Your task to perform on an android device: stop showing notifications on the lock screen Image 0: 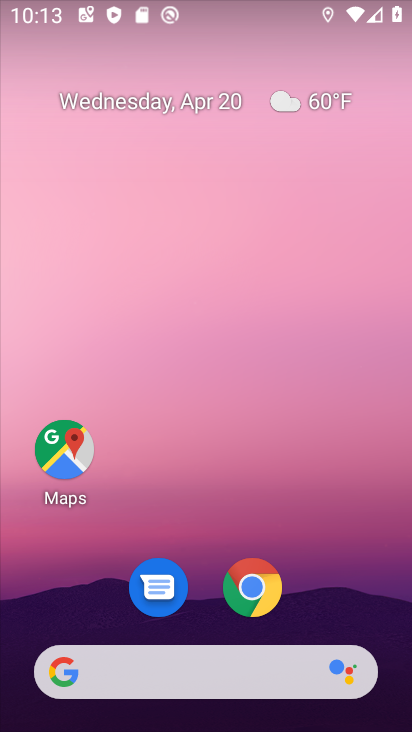
Step 0: drag from (344, 540) to (203, 137)
Your task to perform on an android device: stop showing notifications on the lock screen Image 1: 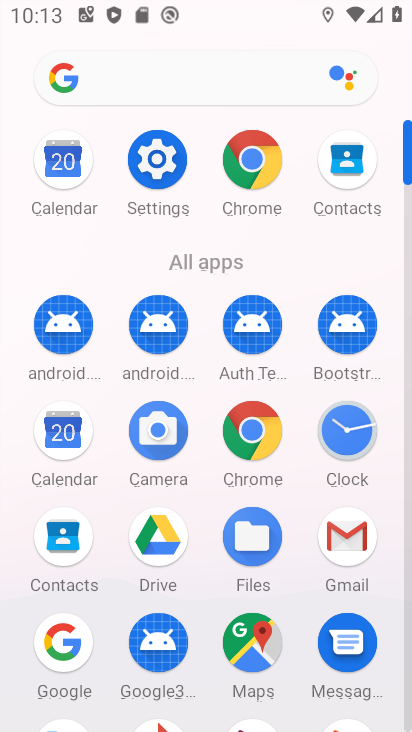
Step 1: click (148, 161)
Your task to perform on an android device: stop showing notifications on the lock screen Image 2: 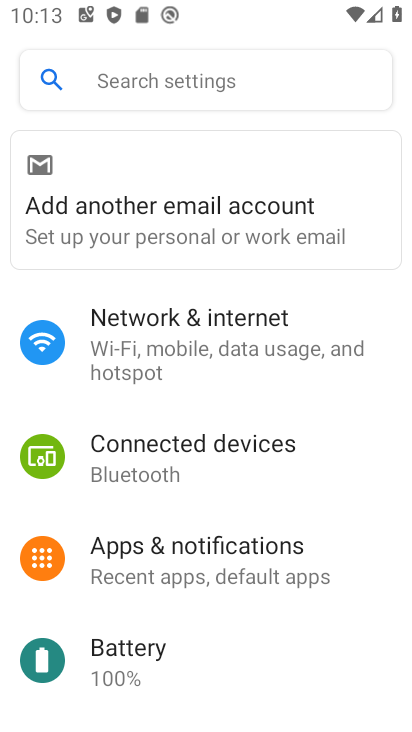
Step 2: click (140, 560)
Your task to perform on an android device: stop showing notifications on the lock screen Image 3: 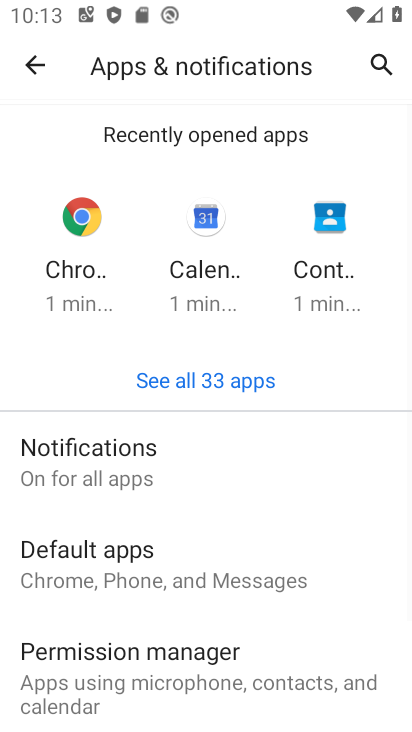
Step 3: click (78, 449)
Your task to perform on an android device: stop showing notifications on the lock screen Image 4: 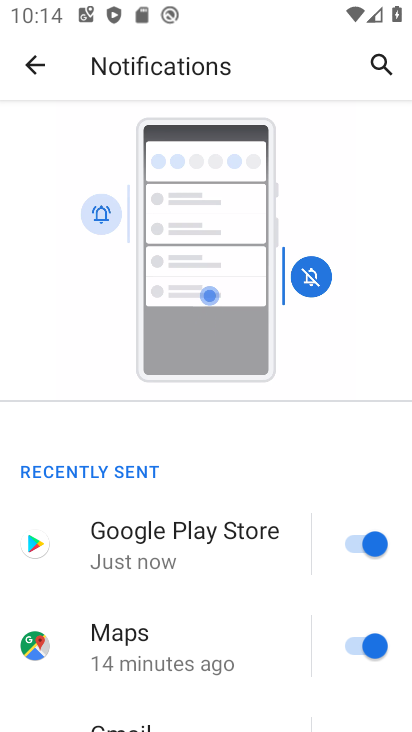
Step 4: drag from (179, 658) to (179, 156)
Your task to perform on an android device: stop showing notifications on the lock screen Image 5: 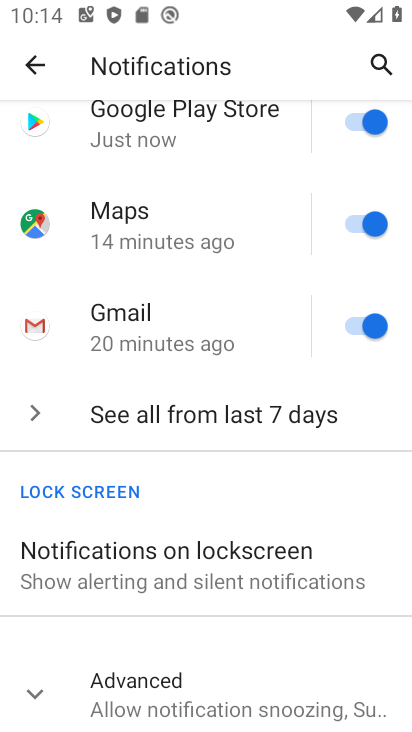
Step 5: click (176, 572)
Your task to perform on an android device: stop showing notifications on the lock screen Image 6: 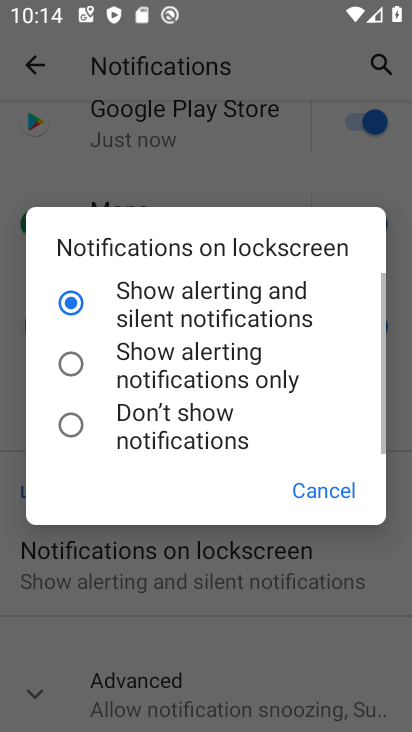
Step 6: click (152, 422)
Your task to perform on an android device: stop showing notifications on the lock screen Image 7: 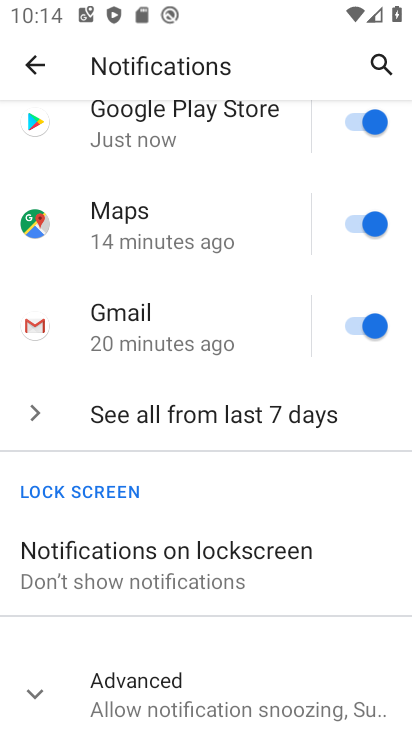
Step 7: task complete